Your task to perform on an android device: add a label to a message in the gmail app Image 0: 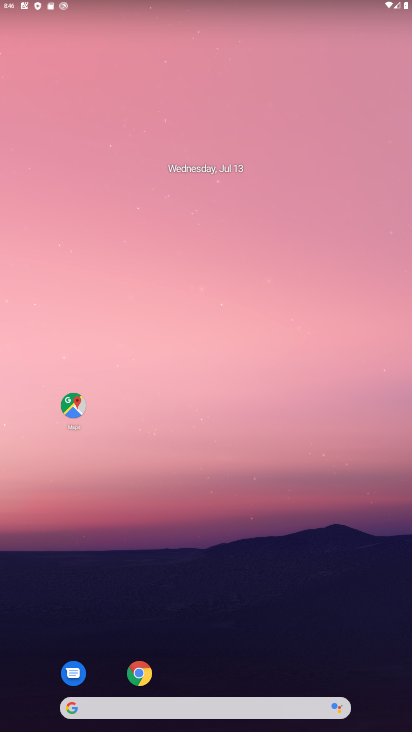
Step 0: drag from (178, 678) to (350, 64)
Your task to perform on an android device: add a label to a message in the gmail app Image 1: 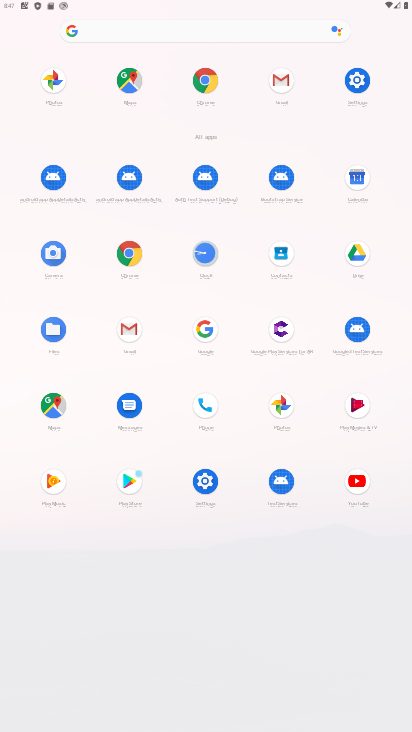
Step 1: click (269, 106)
Your task to perform on an android device: add a label to a message in the gmail app Image 2: 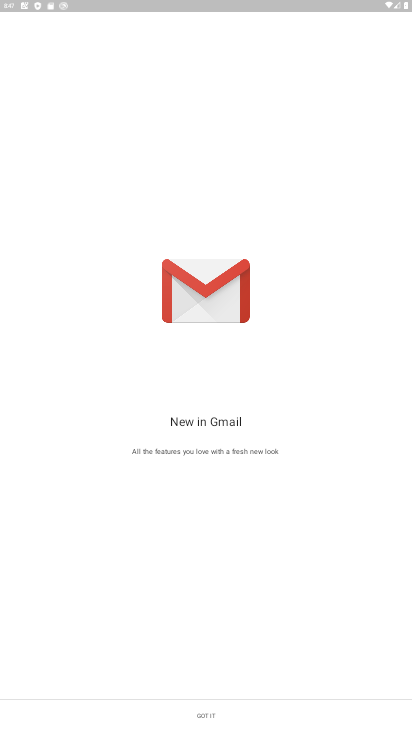
Step 2: click (288, 705)
Your task to perform on an android device: add a label to a message in the gmail app Image 3: 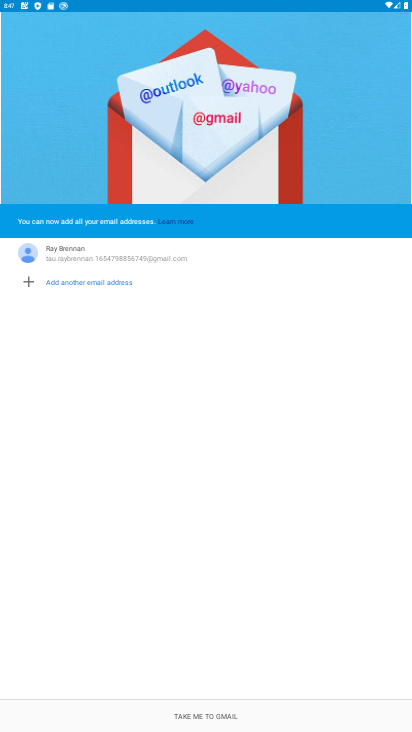
Step 3: click (196, 711)
Your task to perform on an android device: add a label to a message in the gmail app Image 4: 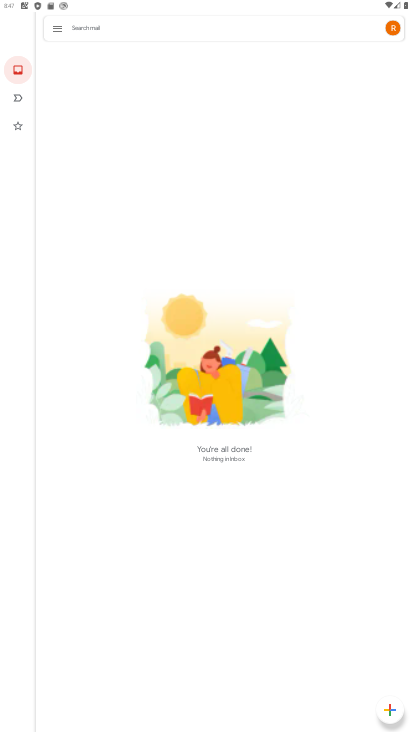
Step 4: click (52, 29)
Your task to perform on an android device: add a label to a message in the gmail app Image 5: 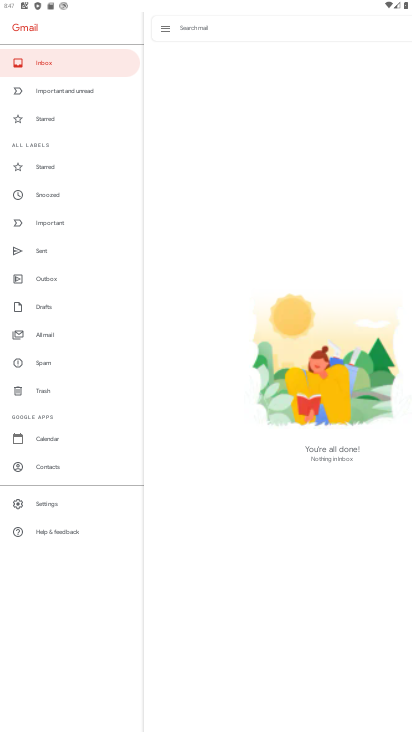
Step 5: click (54, 334)
Your task to perform on an android device: add a label to a message in the gmail app Image 6: 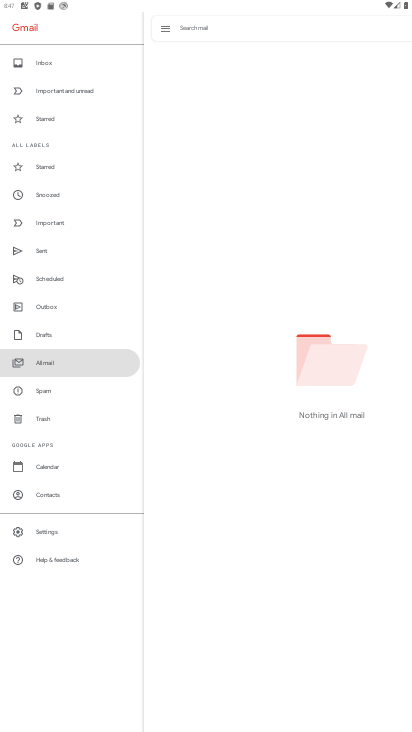
Step 6: task complete